Your task to perform on an android device: Open the map Image 0: 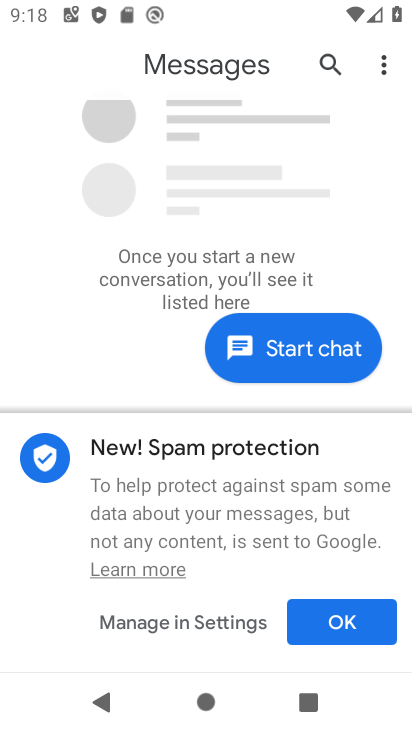
Step 0: press home button
Your task to perform on an android device: Open the map Image 1: 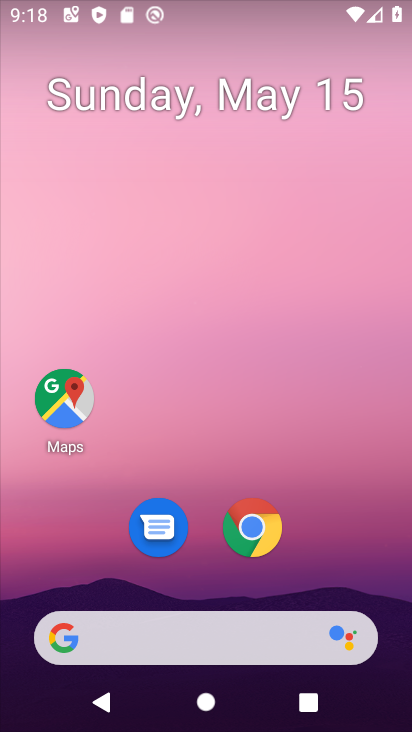
Step 1: click (80, 423)
Your task to perform on an android device: Open the map Image 2: 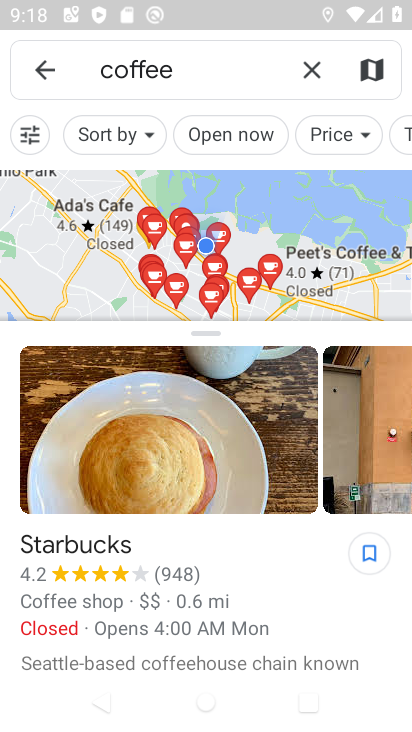
Step 2: task complete